Your task to perform on an android device: Open the map Image 0: 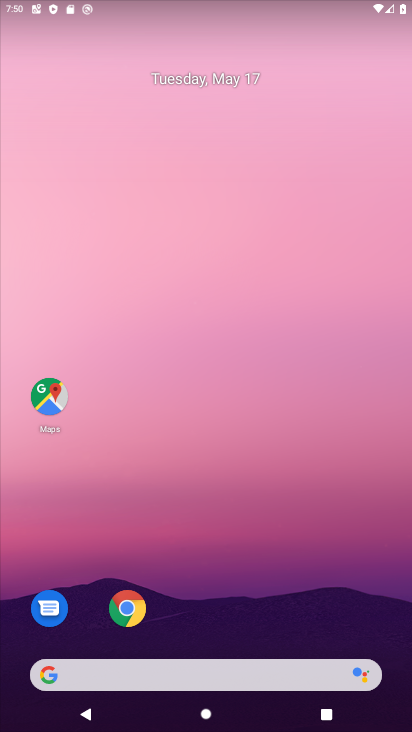
Step 0: click (45, 387)
Your task to perform on an android device: Open the map Image 1: 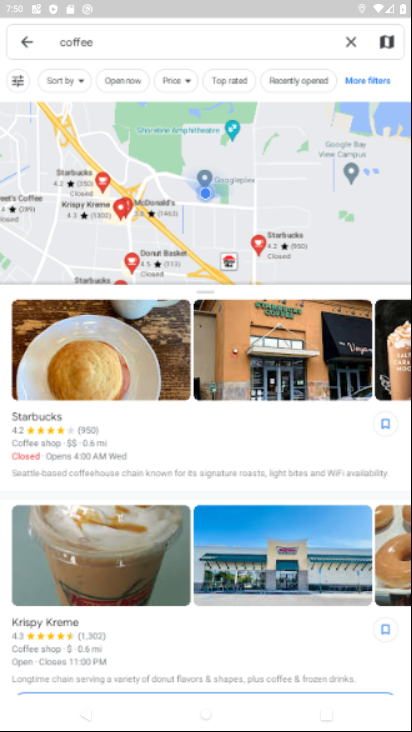
Step 1: task complete